Your task to perform on an android device: Do I have any events this weekend? Image 0: 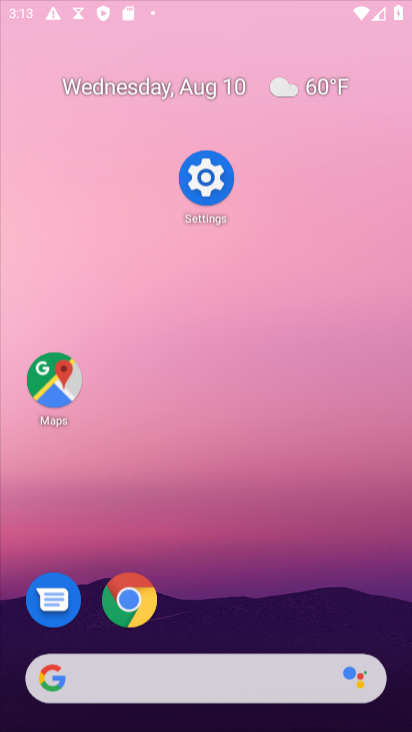
Step 0: press home button
Your task to perform on an android device: Do I have any events this weekend? Image 1: 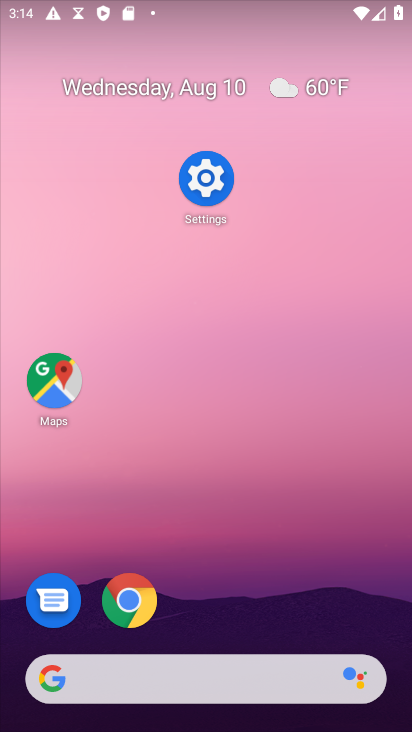
Step 1: drag from (259, 634) to (243, 13)
Your task to perform on an android device: Do I have any events this weekend? Image 2: 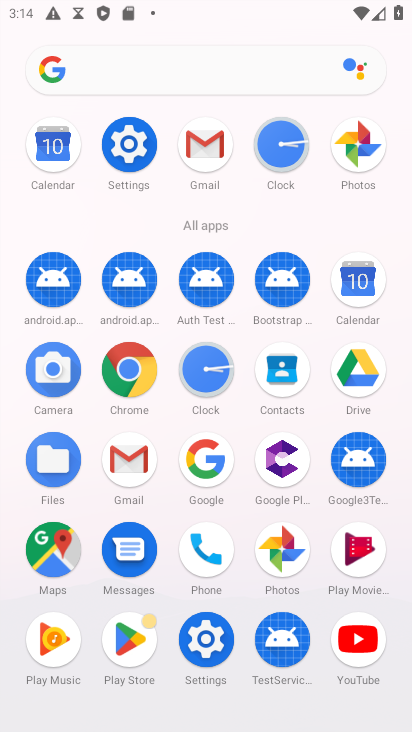
Step 2: click (346, 276)
Your task to perform on an android device: Do I have any events this weekend? Image 3: 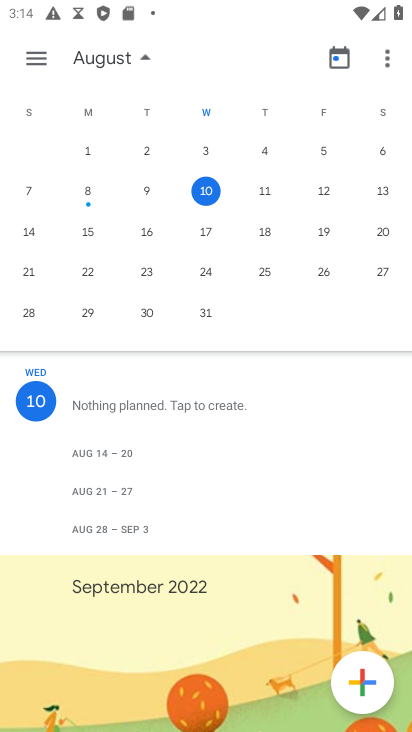
Step 3: click (30, 59)
Your task to perform on an android device: Do I have any events this weekend? Image 4: 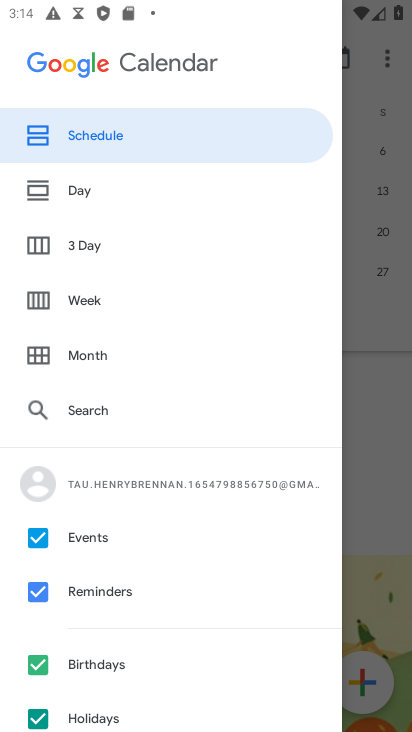
Step 4: click (89, 301)
Your task to perform on an android device: Do I have any events this weekend? Image 5: 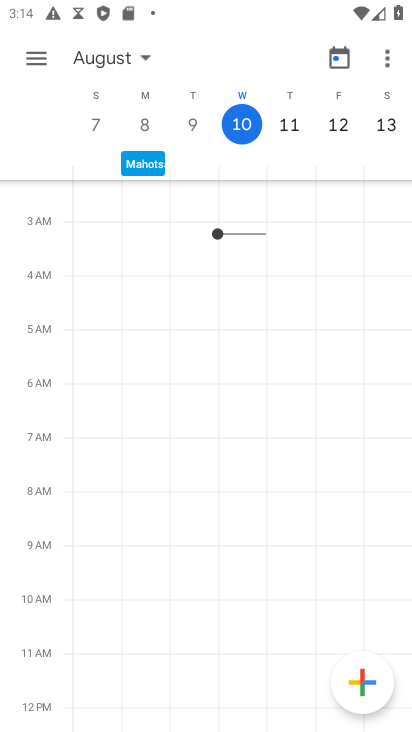
Step 5: click (373, 155)
Your task to perform on an android device: Do I have any events this weekend? Image 6: 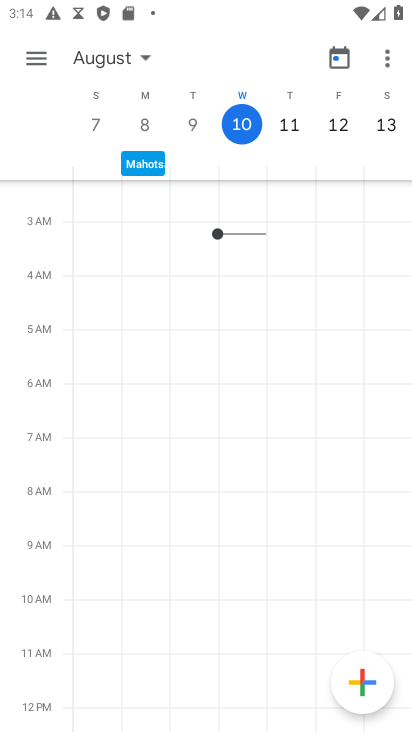
Step 6: task complete